Your task to perform on an android device: Open Yahoo.com Image 0: 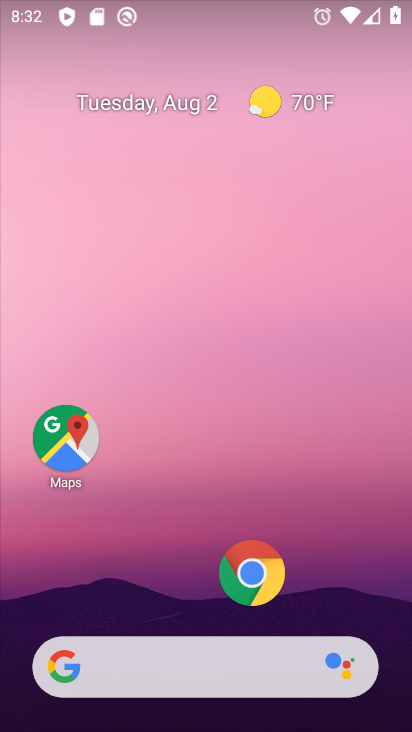
Step 0: drag from (194, 603) to (212, 69)
Your task to perform on an android device: Open Yahoo.com Image 1: 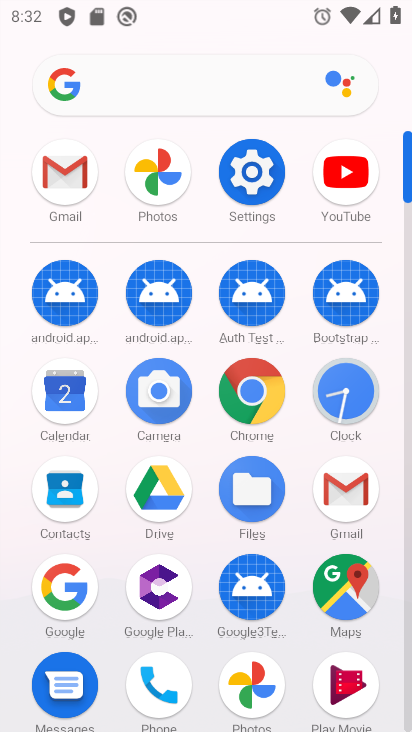
Step 1: click (247, 388)
Your task to perform on an android device: Open Yahoo.com Image 2: 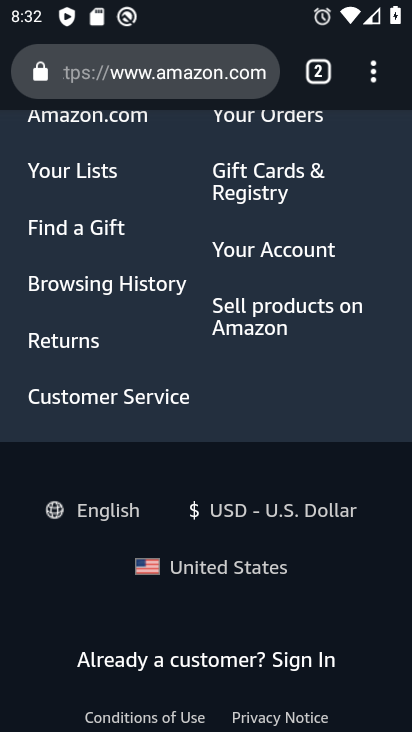
Step 2: click (320, 66)
Your task to perform on an android device: Open Yahoo.com Image 3: 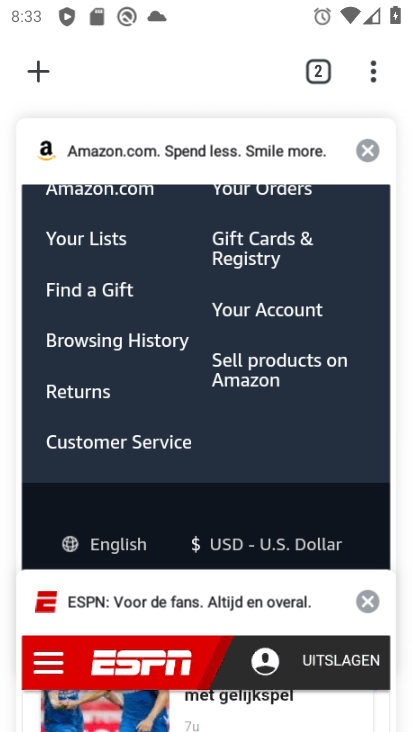
Step 3: click (49, 74)
Your task to perform on an android device: Open Yahoo.com Image 4: 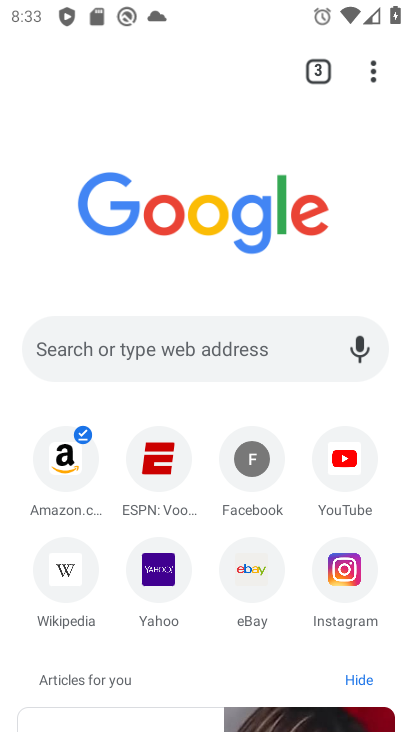
Step 4: click (159, 573)
Your task to perform on an android device: Open Yahoo.com Image 5: 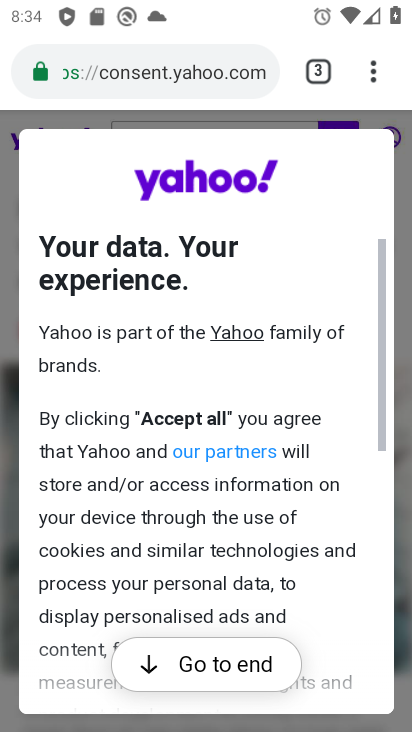
Step 5: click (178, 668)
Your task to perform on an android device: Open Yahoo.com Image 6: 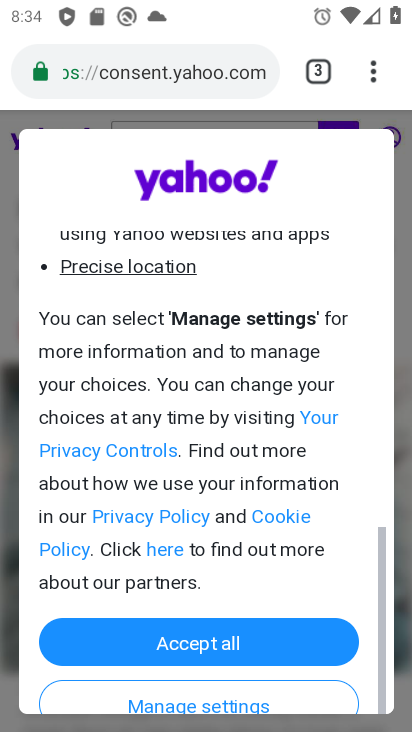
Step 6: click (212, 634)
Your task to perform on an android device: Open Yahoo.com Image 7: 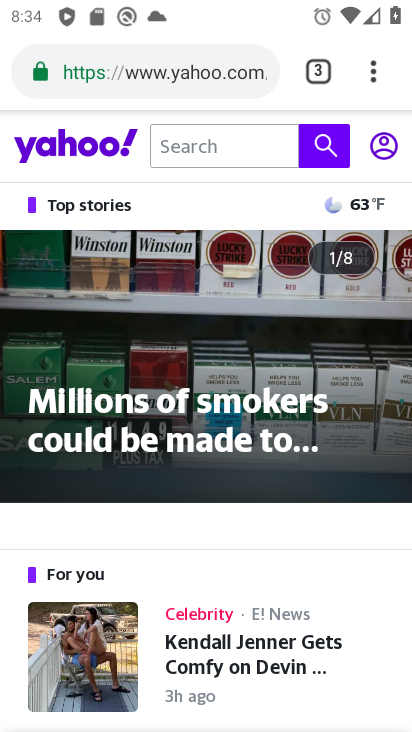
Step 7: task complete